Your task to perform on an android device: snooze an email in the gmail app Image 0: 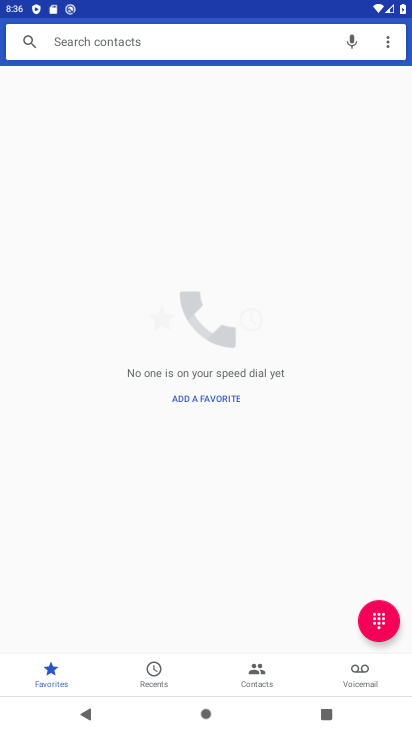
Step 0: press home button
Your task to perform on an android device: snooze an email in the gmail app Image 1: 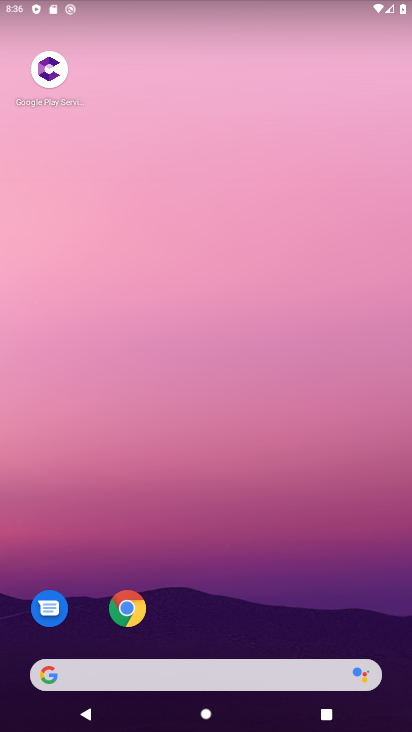
Step 1: drag from (217, 603) to (252, 73)
Your task to perform on an android device: snooze an email in the gmail app Image 2: 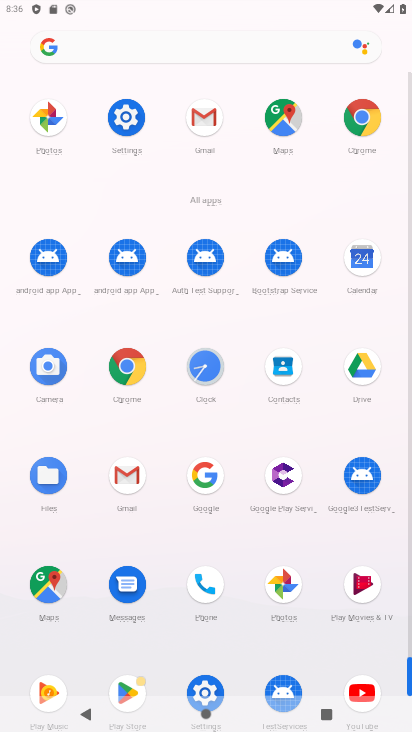
Step 2: click (131, 489)
Your task to perform on an android device: snooze an email in the gmail app Image 3: 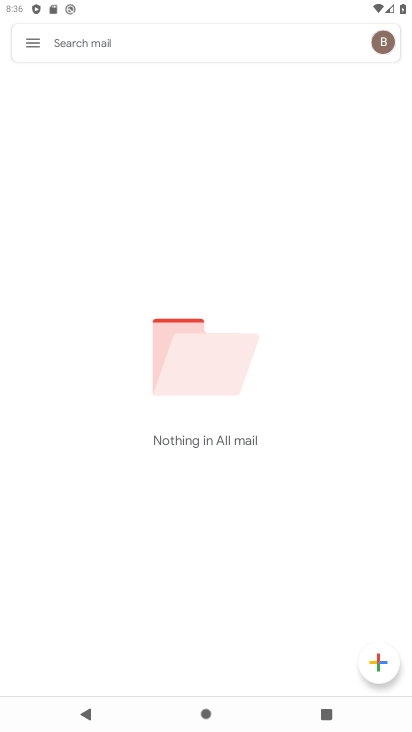
Step 3: task complete